Your task to perform on an android device: turn off location history Image 0: 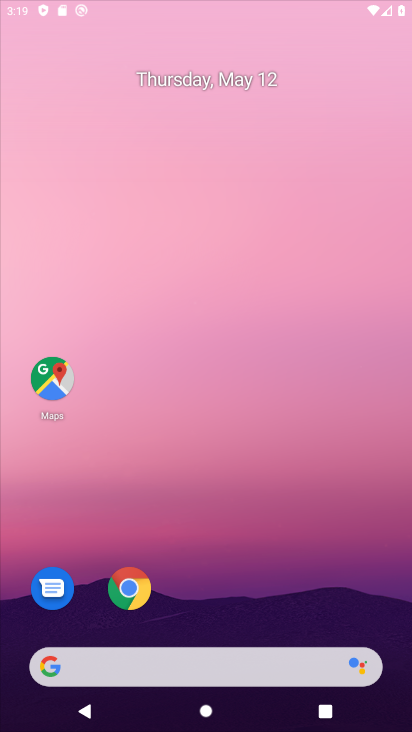
Step 0: drag from (295, 593) to (250, 399)
Your task to perform on an android device: turn off location history Image 1: 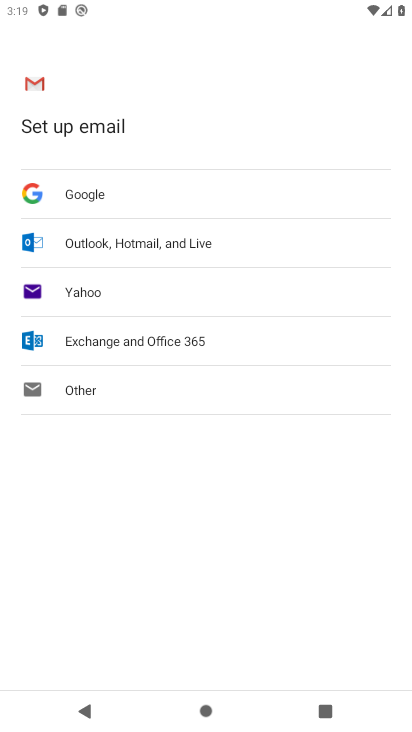
Step 1: press home button
Your task to perform on an android device: turn off location history Image 2: 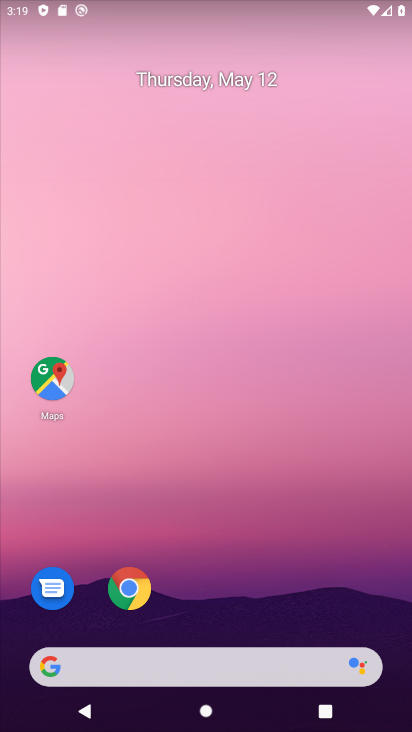
Step 2: drag from (300, 572) to (317, 42)
Your task to perform on an android device: turn off location history Image 3: 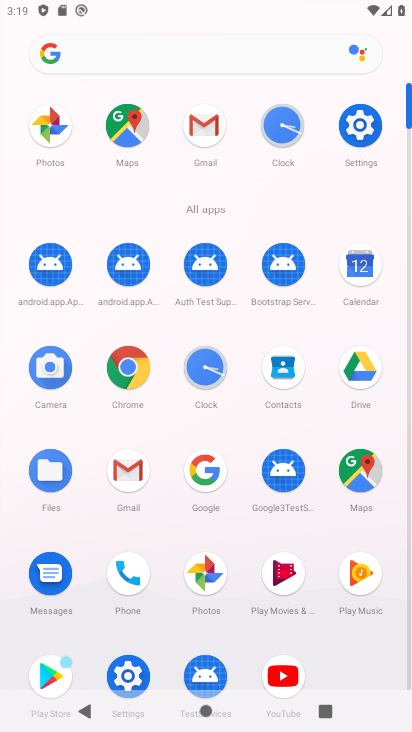
Step 3: click (349, 107)
Your task to perform on an android device: turn off location history Image 4: 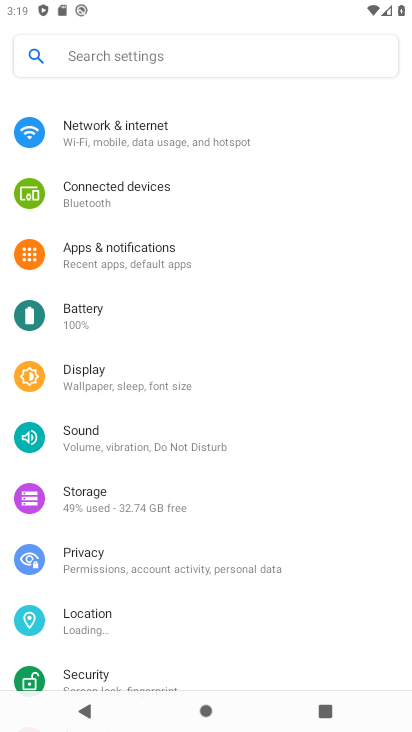
Step 4: click (213, 608)
Your task to perform on an android device: turn off location history Image 5: 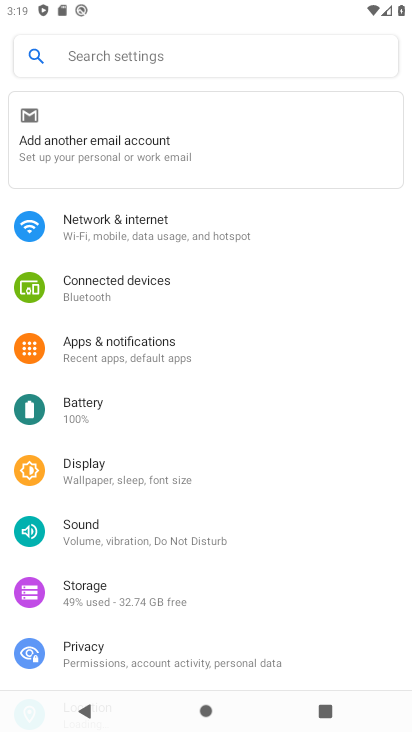
Step 5: drag from (197, 601) to (176, 282)
Your task to perform on an android device: turn off location history Image 6: 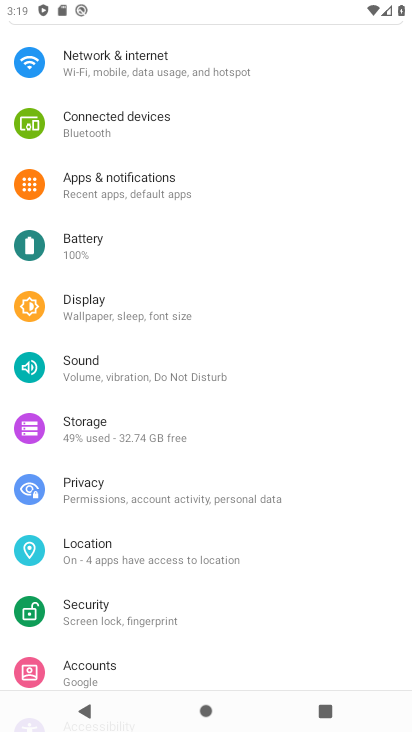
Step 6: click (175, 533)
Your task to perform on an android device: turn off location history Image 7: 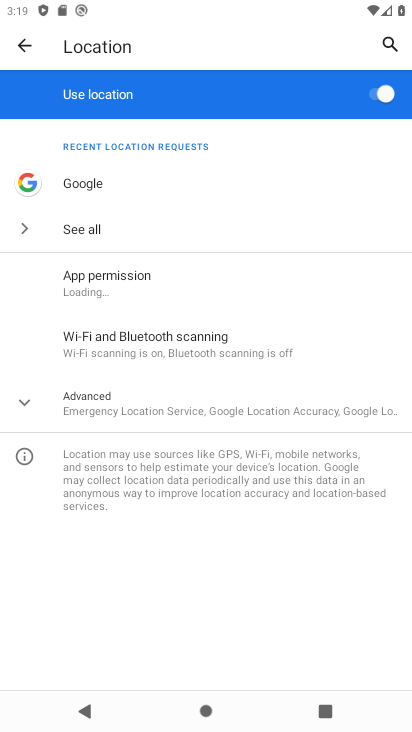
Step 7: click (110, 421)
Your task to perform on an android device: turn off location history Image 8: 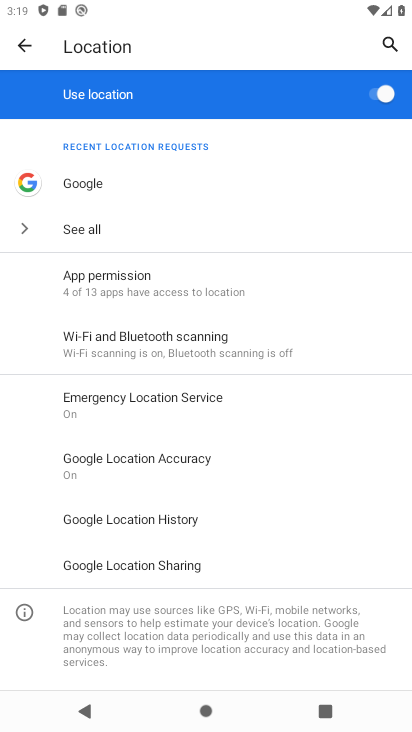
Step 8: click (128, 508)
Your task to perform on an android device: turn off location history Image 9: 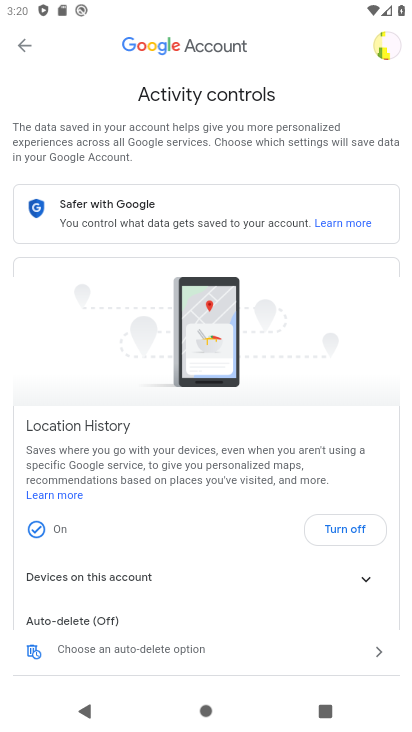
Step 9: click (329, 524)
Your task to perform on an android device: turn off location history Image 10: 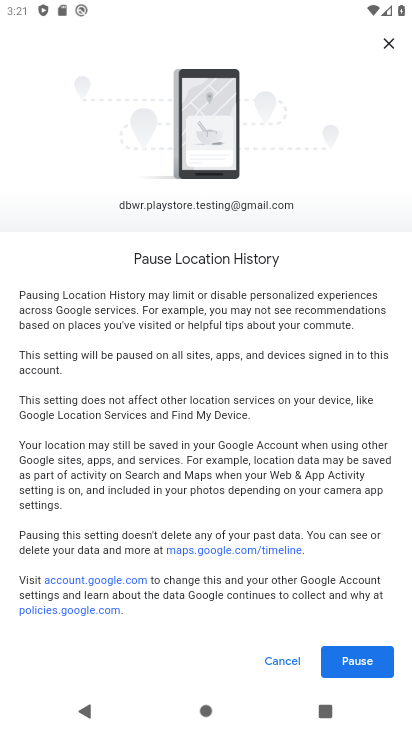
Step 10: click (350, 654)
Your task to perform on an android device: turn off location history Image 11: 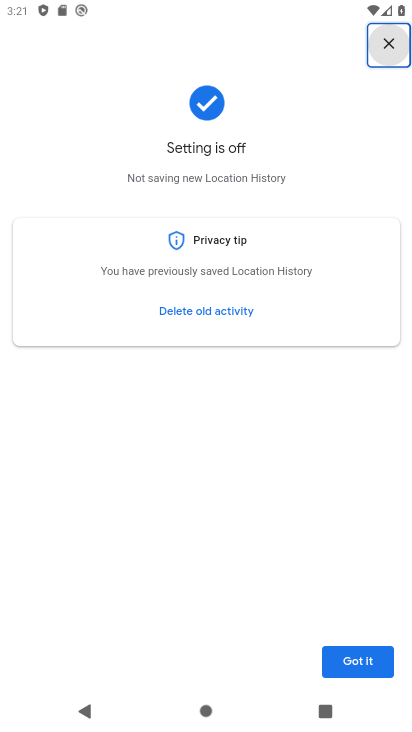
Step 11: click (350, 651)
Your task to perform on an android device: turn off location history Image 12: 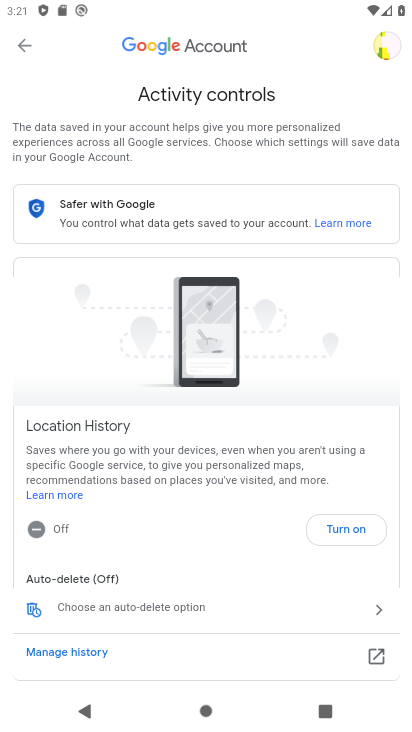
Step 12: task complete